Your task to perform on an android device: find snoozed emails in the gmail app Image 0: 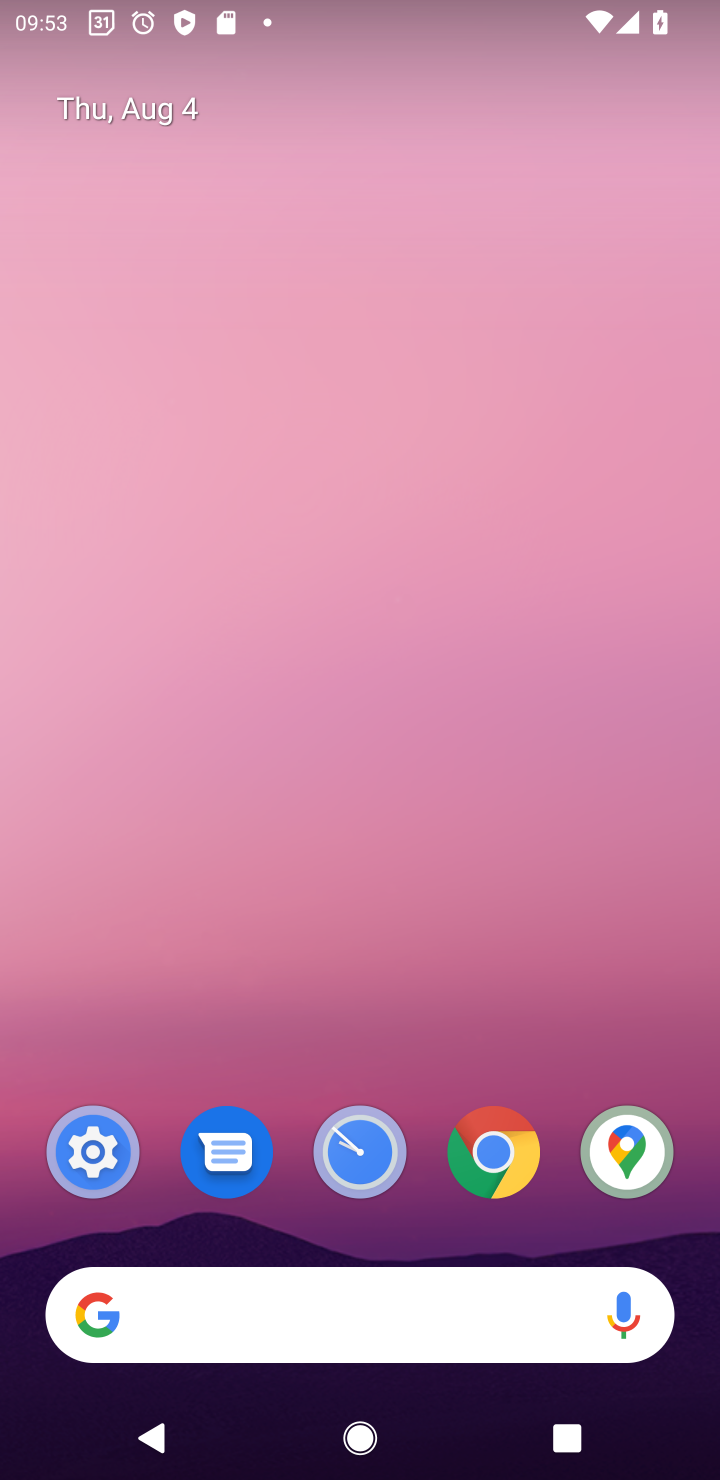
Step 0: drag from (168, 973) to (509, 321)
Your task to perform on an android device: find snoozed emails in the gmail app Image 1: 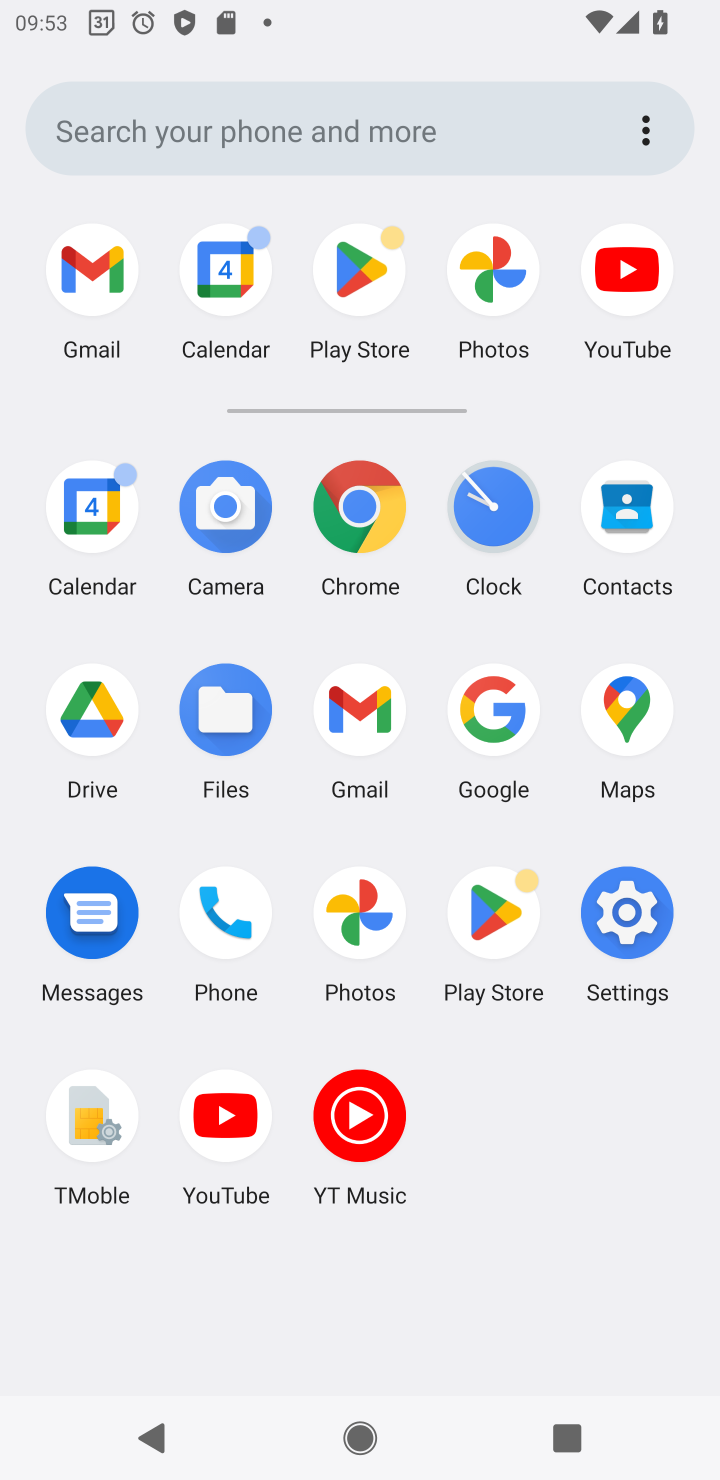
Step 1: click (352, 704)
Your task to perform on an android device: find snoozed emails in the gmail app Image 2: 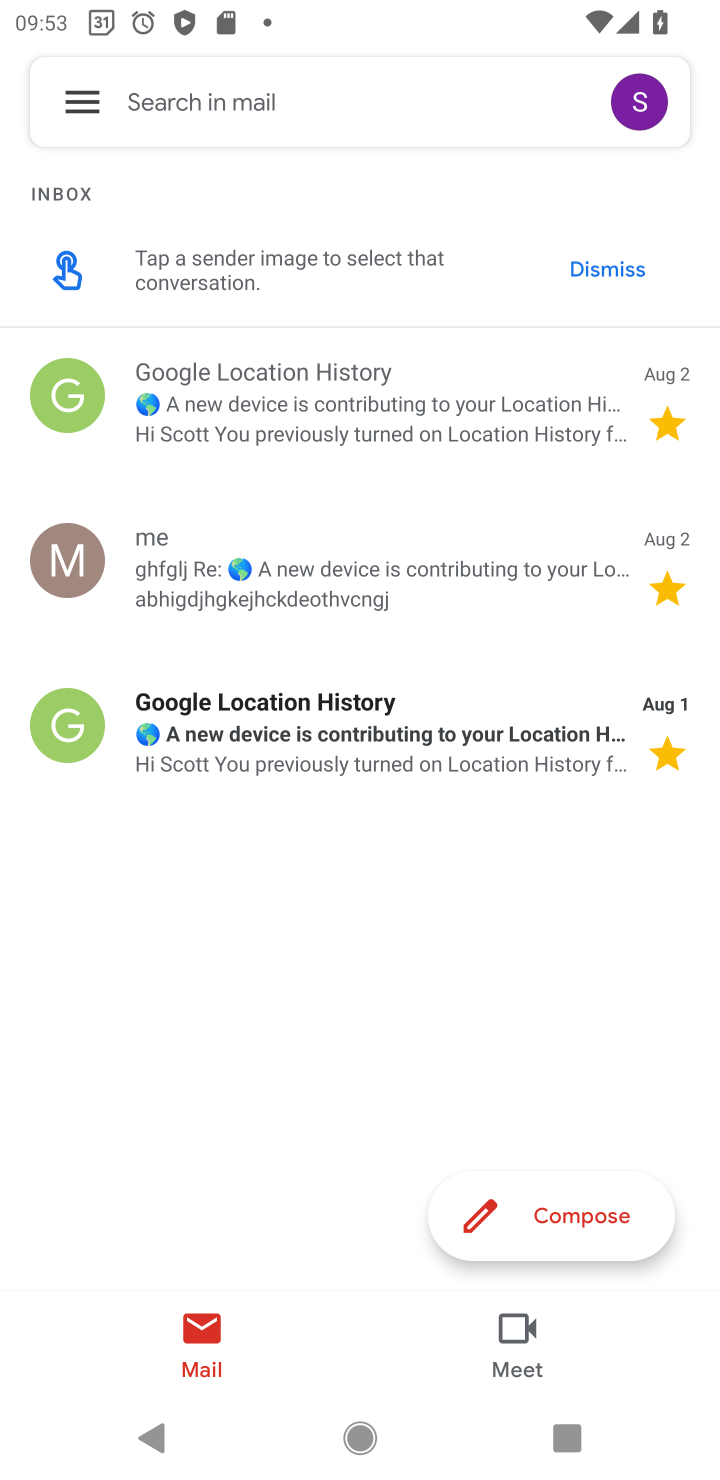
Step 2: click (92, 98)
Your task to perform on an android device: find snoozed emails in the gmail app Image 3: 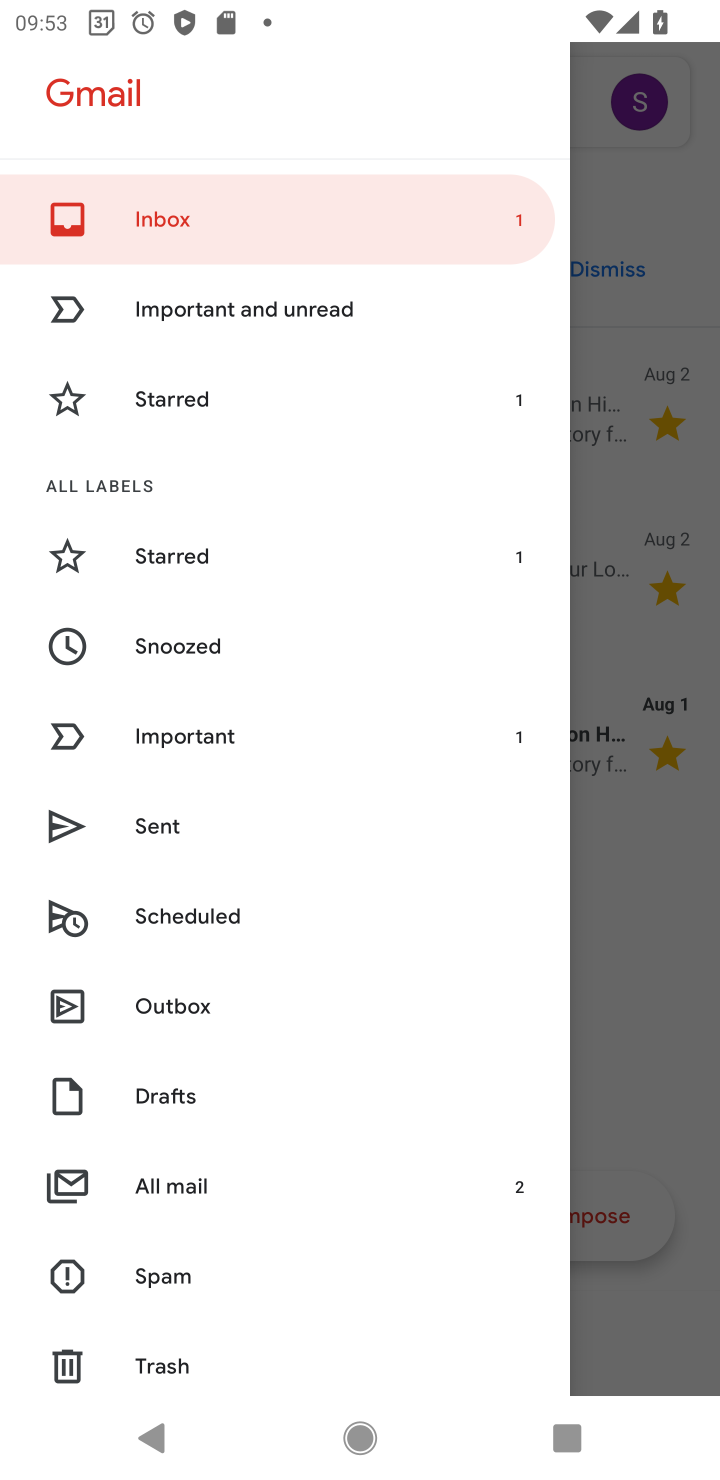
Step 3: click (239, 622)
Your task to perform on an android device: find snoozed emails in the gmail app Image 4: 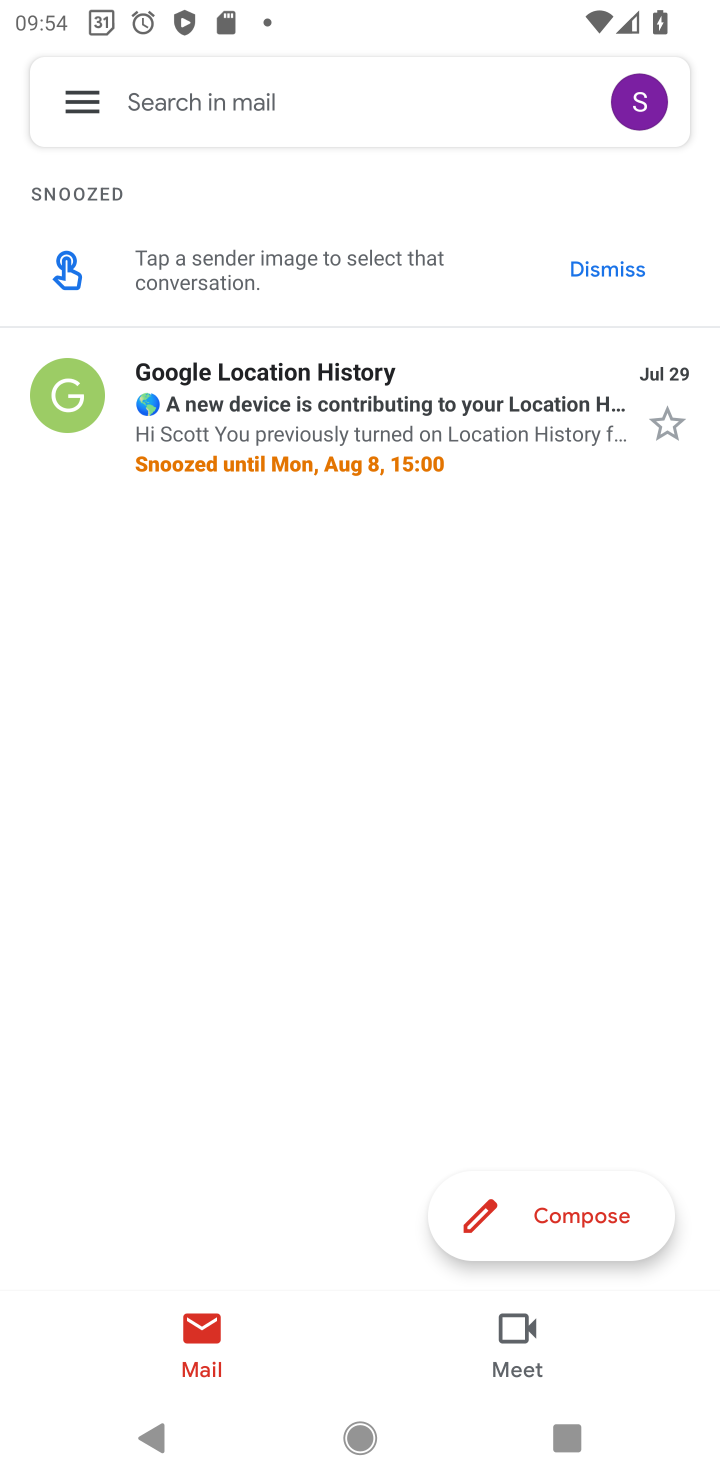
Step 4: task complete